Your task to perform on an android device: stop showing notifications on the lock screen Image 0: 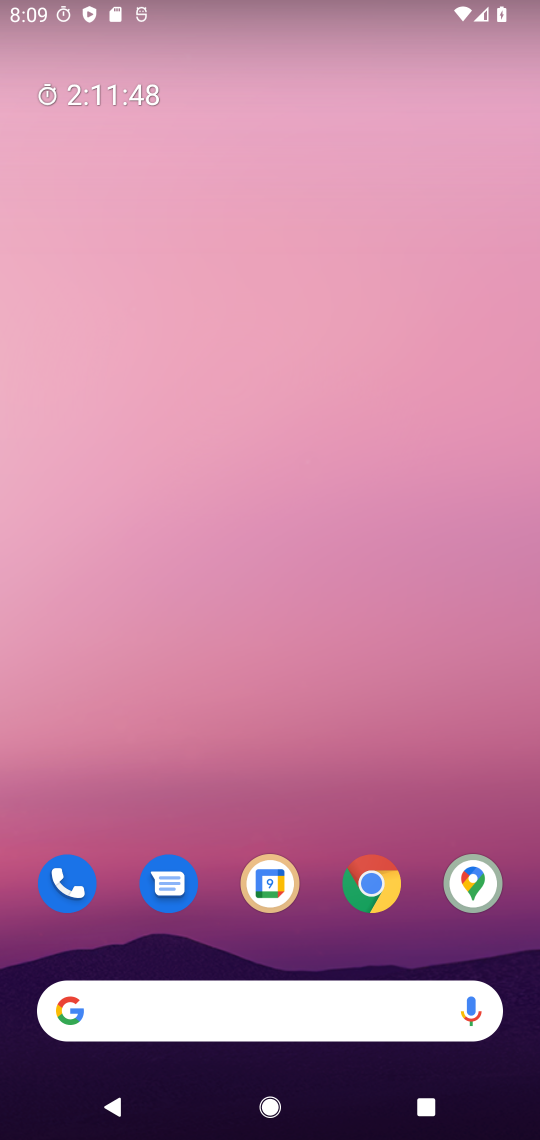
Step 0: drag from (244, 795) to (228, 313)
Your task to perform on an android device: stop showing notifications on the lock screen Image 1: 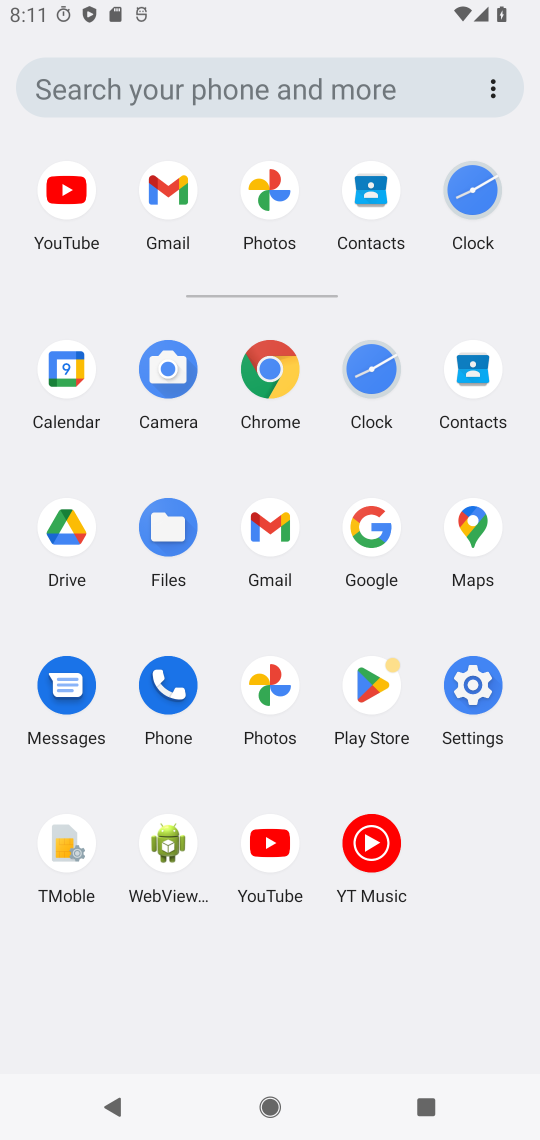
Step 1: click (451, 698)
Your task to perform on an android device: stop showing notifications on the lock screen Image 2: 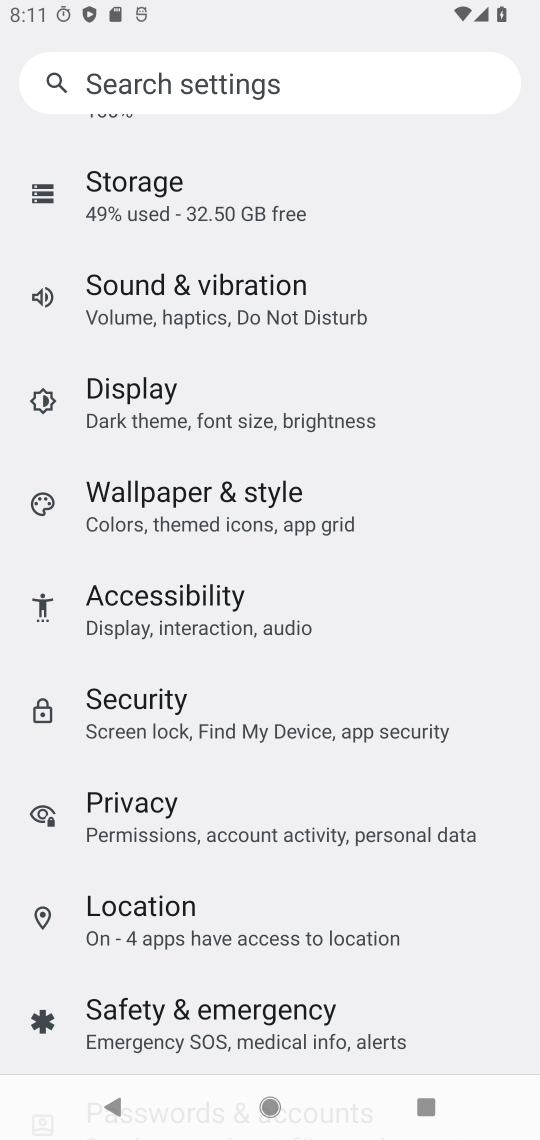
Step 2: drag from (278, 314) to (297, 899)
Your task to perform on an android device: stop showing notifications on the lock screen Image 3: 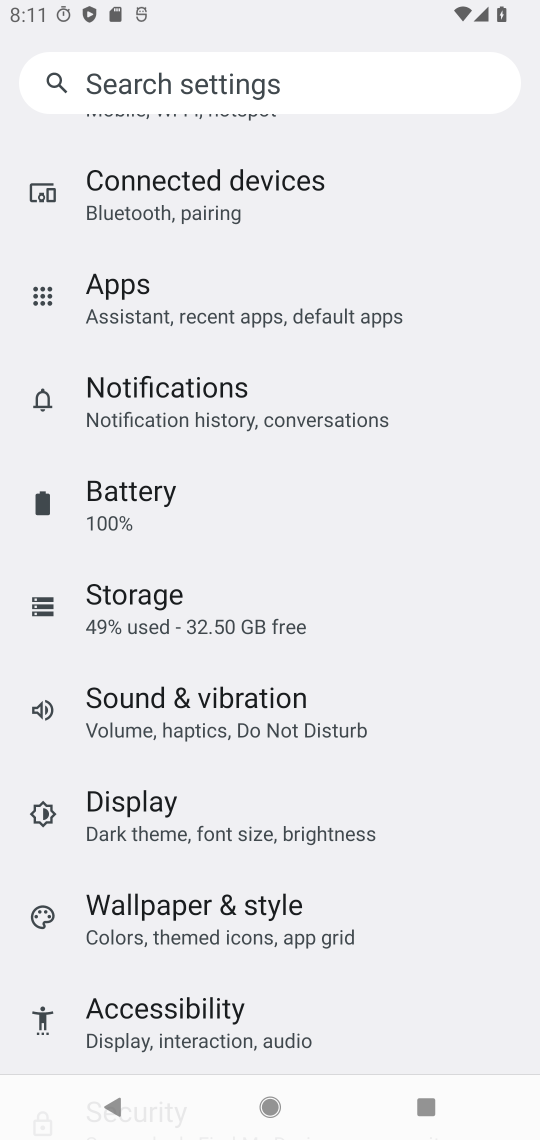
Step 3: click (217, 417)
Your task to perform on an android device: stop showing notifications on the lock screen Image 4: 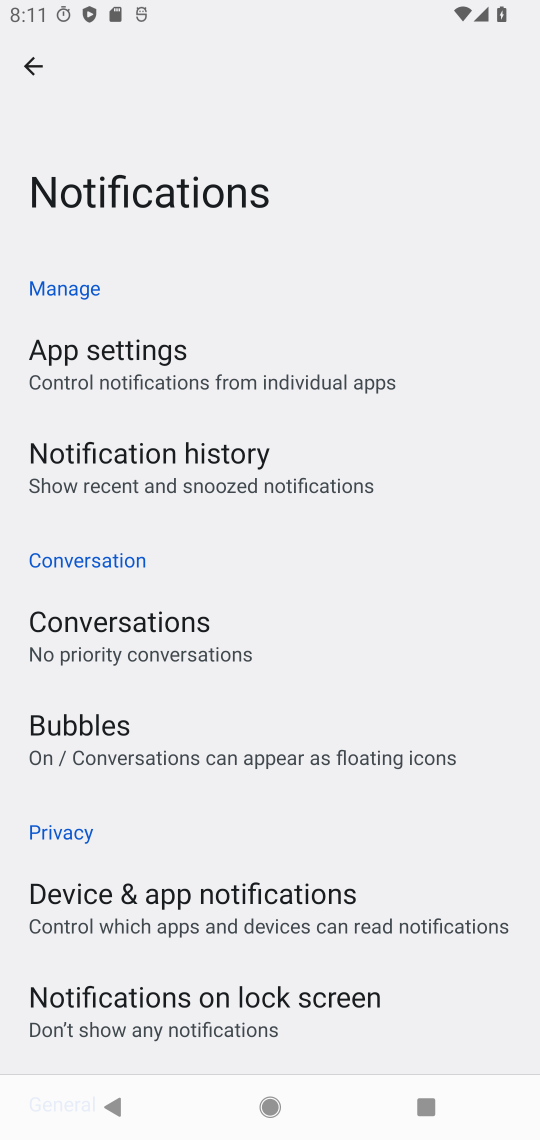
Step 4: click (309, 1016)
Your task to perform on an android device: stop showing notifications on the lock screen Image 5: 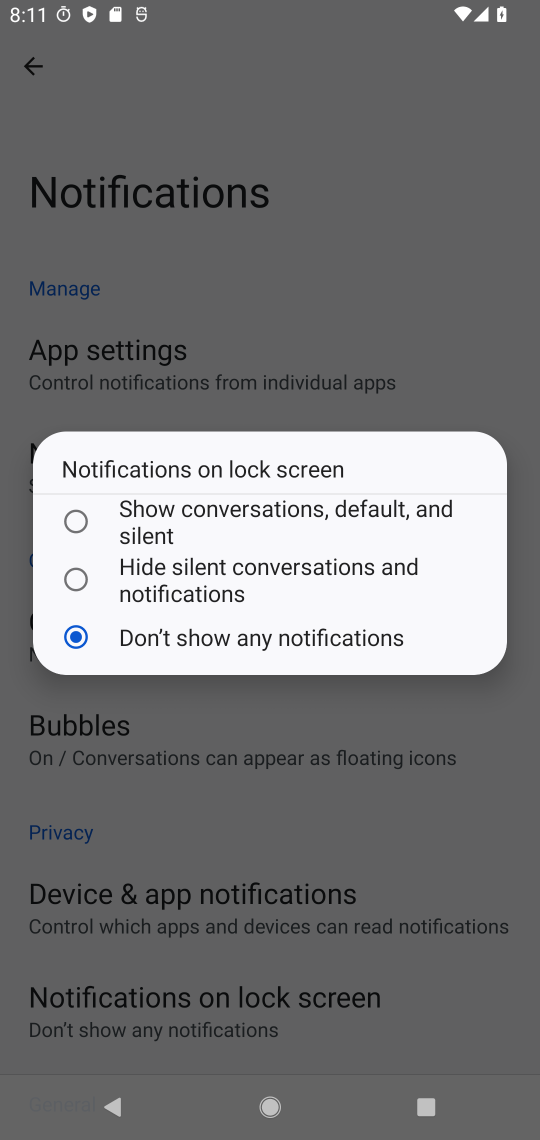
Step 5: task complete